Your task to perform on an android device: Show me productivity apps on the Play Store Image 0: 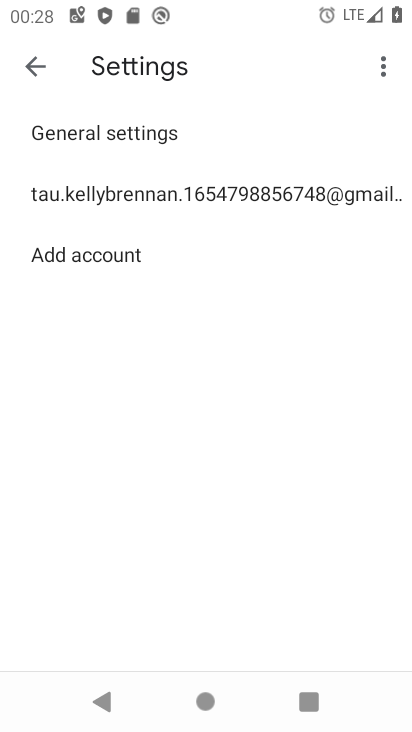
Step 0: press home button
Your task to perform on an android device: Show me productivity apps on the Play Store Image 1: 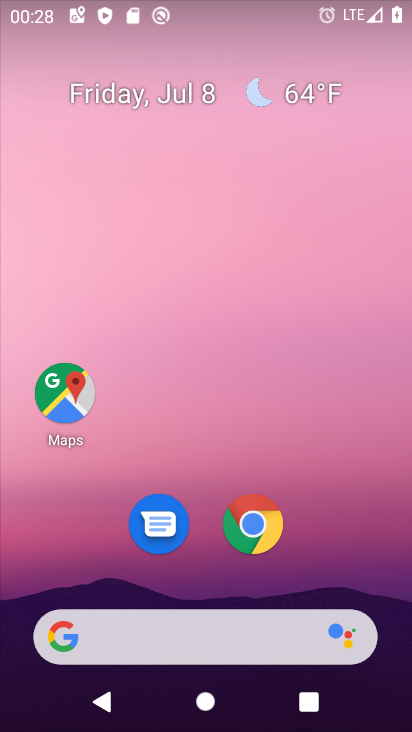
Step 1: drag from (326, 528) to (340, 0)
Your task to perform on an android device: Show me productivity apps on the Play Store Image 2: 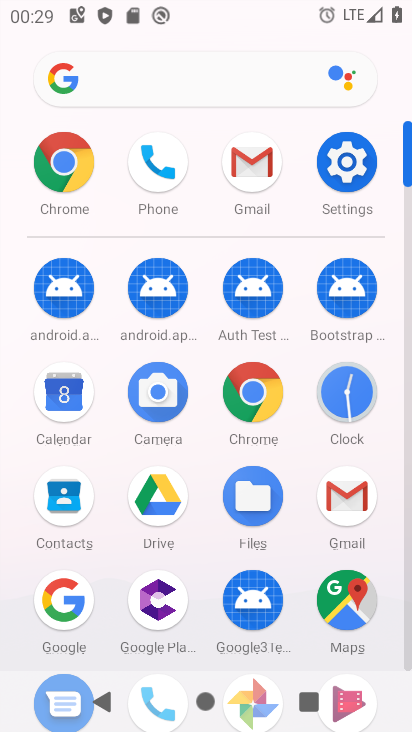
Step 2: drag from (311, 468) to (276, 123)
Your task to perform on an android device: Show me productivity apps on the Play Store Image 3: 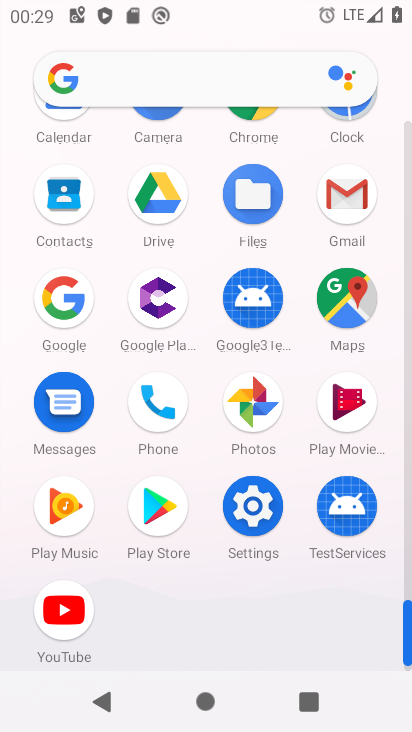
Step 3: click (163, 507)
Your task to perform on an android device: Show me productivity apps on the Play Store Image 4: 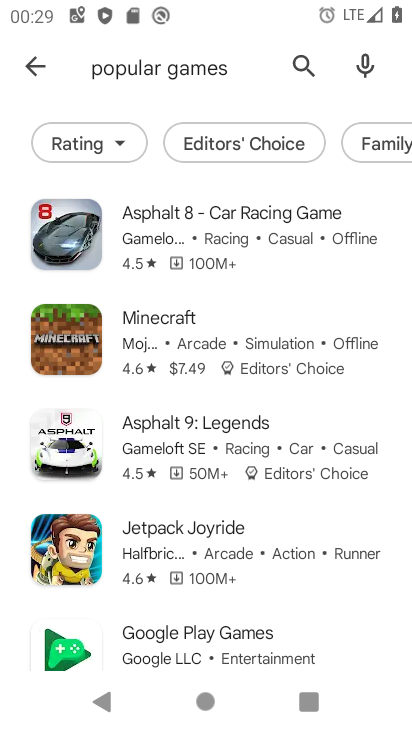
Step 4: click (249, 66)
Your task to perform on an android device: Show me productivity apps on the Play Store Image 5: 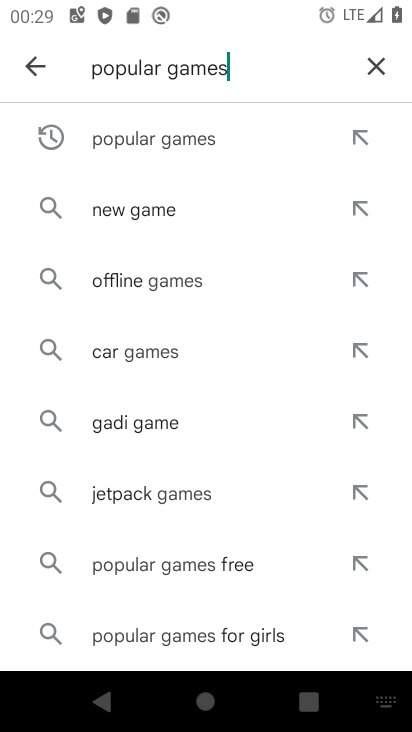
Step 5: click (376, 68)
Your task to perform on an android device: Show me productivity apps on the Play Store Image 6: 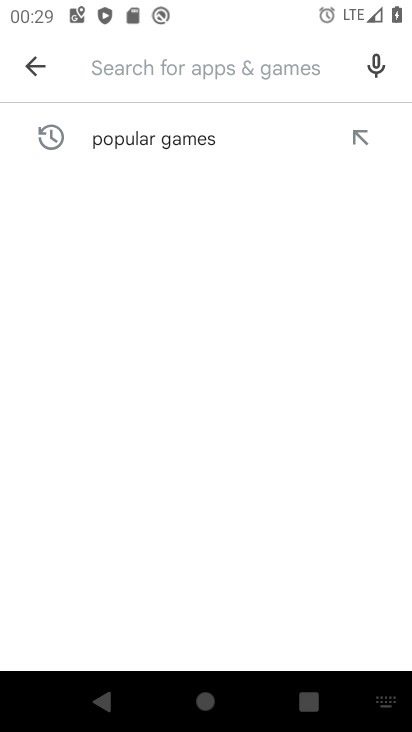
Step 6: click (40, 66)
Your task to perform on an android device: Show me productivity apps on the Play Store Image 7: 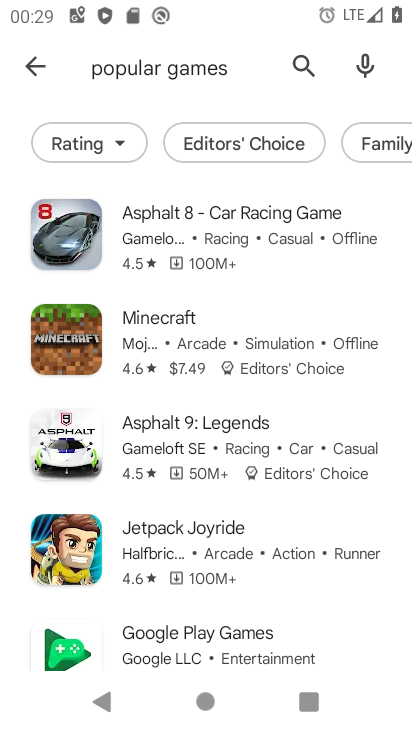
Step 7: click (35, 58)
Your task to perform on an android device: Show me productivity apps on the Play Store Image 8: 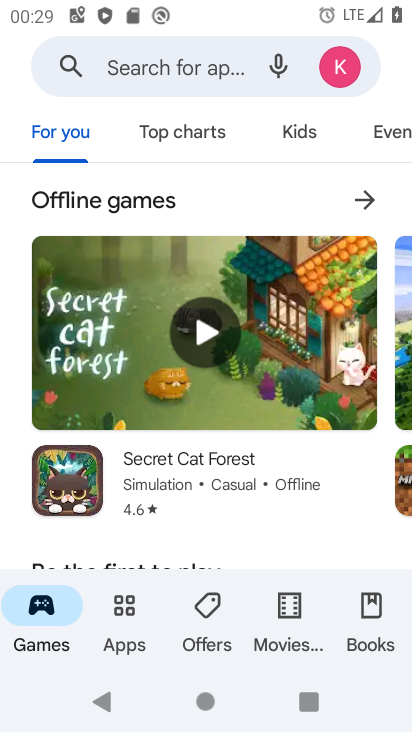
Step 8: click (125, 607)
Your task to perform on an android device: Show me productivity apps on the Play Store Image 9: 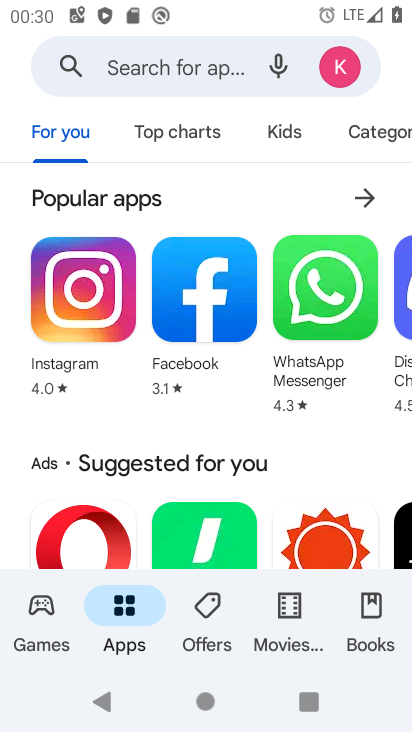
Step 9: click (372, 124)
Your task to perform on an android device: Show me productivity apps on the Play Store Image 10: 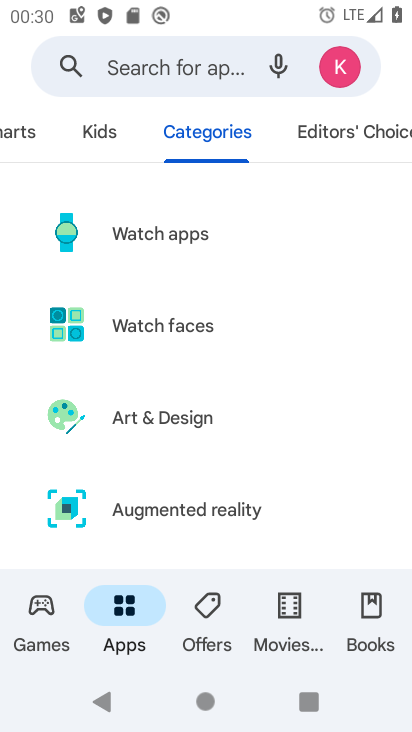
Step 10: drag from (281, 456) to (321, 86)
Your task to perform on an android device: Show me productivity apps on the Play Store Image 11: 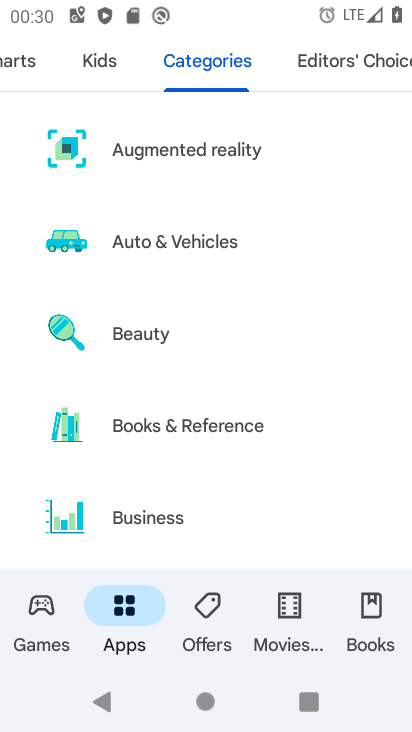
Step 11: drag from (272, 459) to (284, 121)
Your task to perform on an android device: Show me productivity apps on the Play Store Image 12: 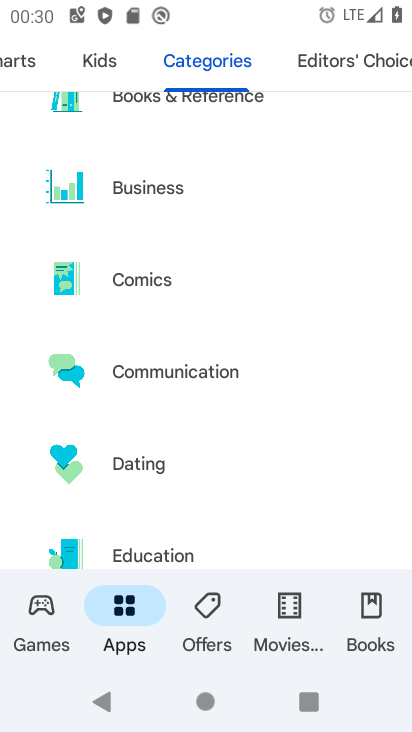
Step 12: drag from (250, 480) to (272, 150)
Your task to perform on an android device: Show me productivity apps on the Play Store Image 13: 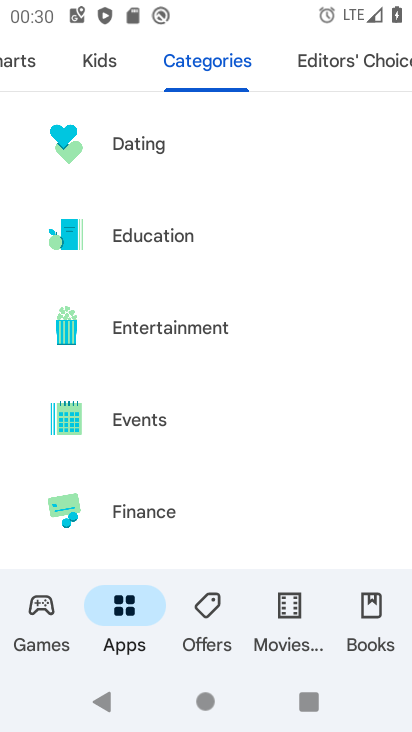
Step 13: drag from (244, 482) to (267, 150)
Your task to perform on an android device: Show me productivity apps on the Play Store Image 14: 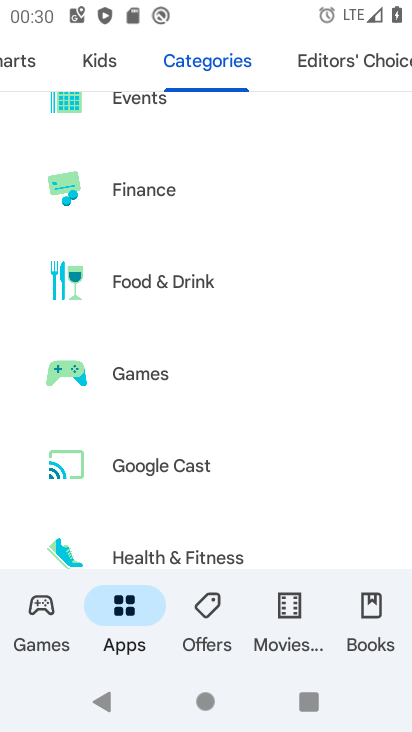
Step 14: drag from (265, 496) to (282, 123)
Your task to perform on an android device: Show me productivity apps on the Play Store Image 15: 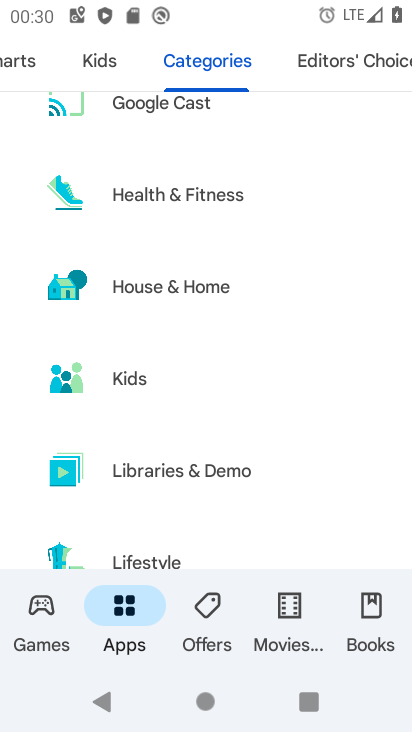
Step 15: drag from (246, 500) to (243, 109)
Your task to perform on an android device: Show me productivity apps on the Play Store Image 16: 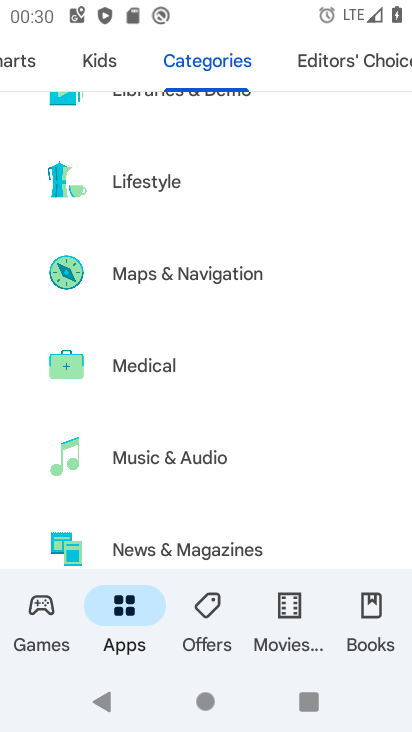
Step 16: drag from (258, 458) to (270, 116)
Your task to perform on an android device: Show me productivity apps on the Play Store Image 17: 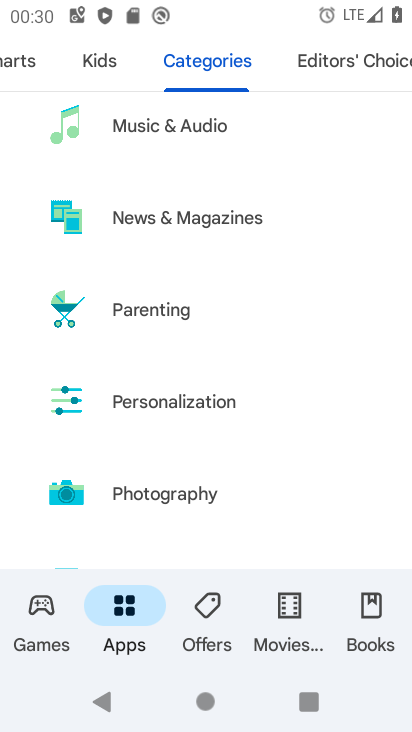
Step 17: drag from (269, 486) to (256, 151)
Your task to perform on an android device: Show me productivity apps on the Play Store Image 18: 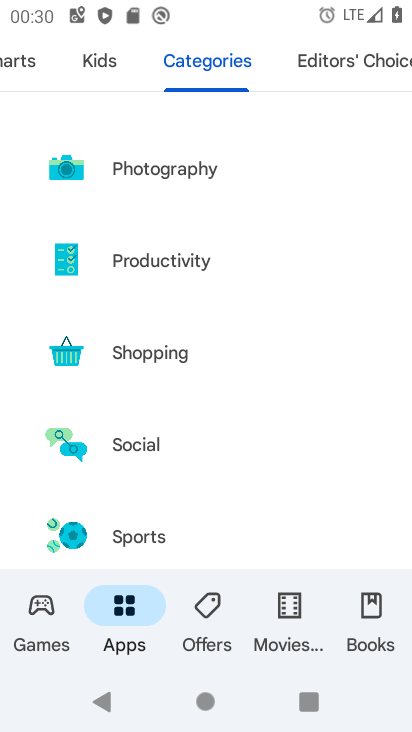
Step 18: click (194, 252)
Your task to perform on an android device: Show me productivity apps on the Play Store Image 19: 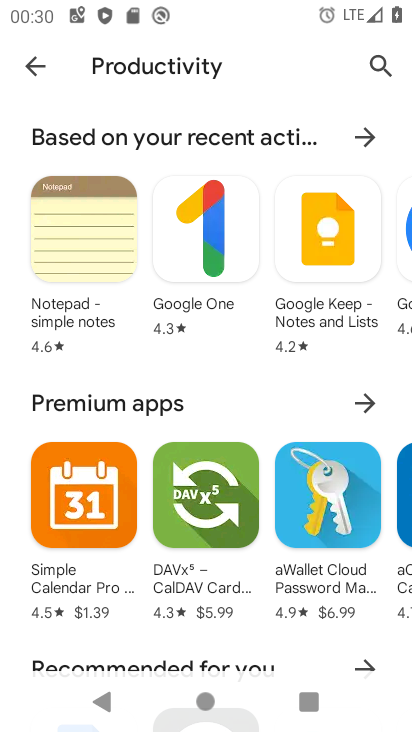
Step 19: task complete